Your task to perform on an android device: What is the news today? Image 0: 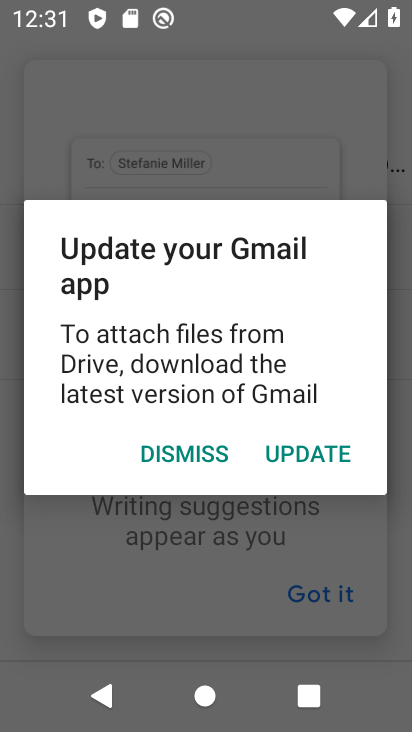
Step 0: press home button
Your task to perform on an android device: What is the news today? Image 1: 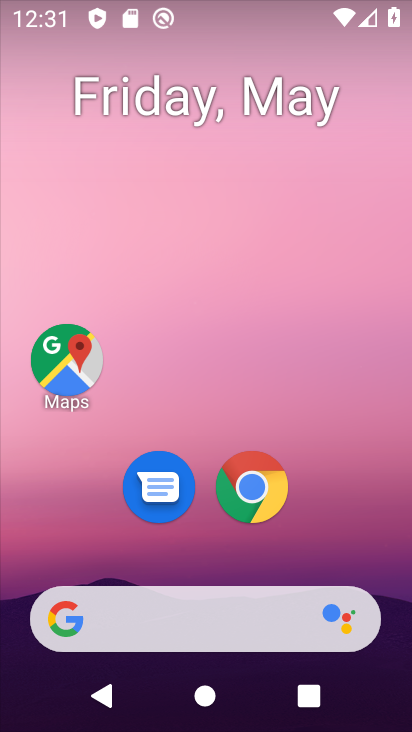
Step 1: task complete